Your task to perform on an android device: turn notification dots on Image 0: 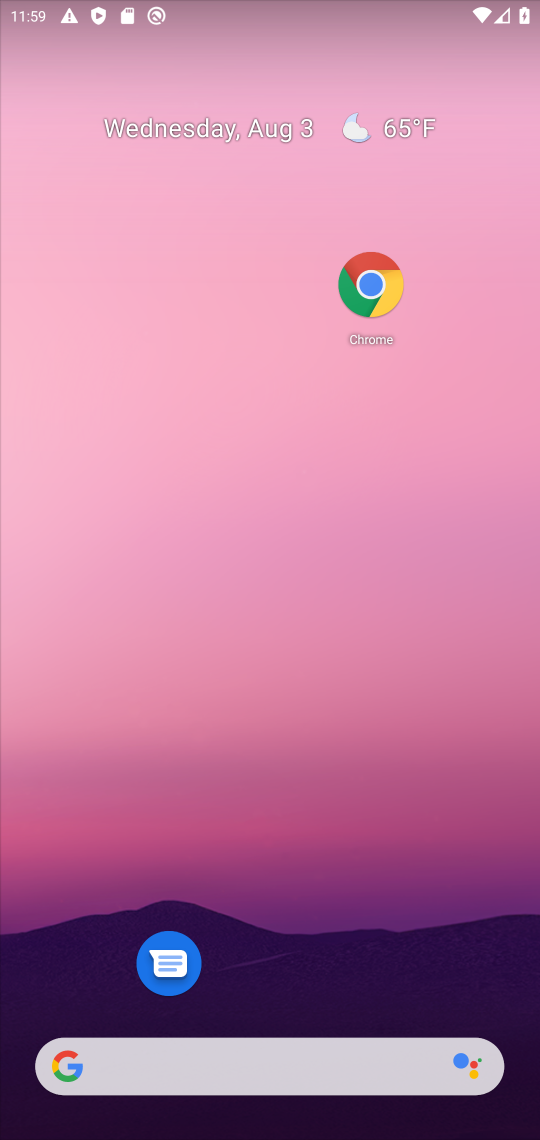
Step 0: drag from (251, 616) to (251, 228)
Your task to perform on an android device: turn notification dots on Image 1: 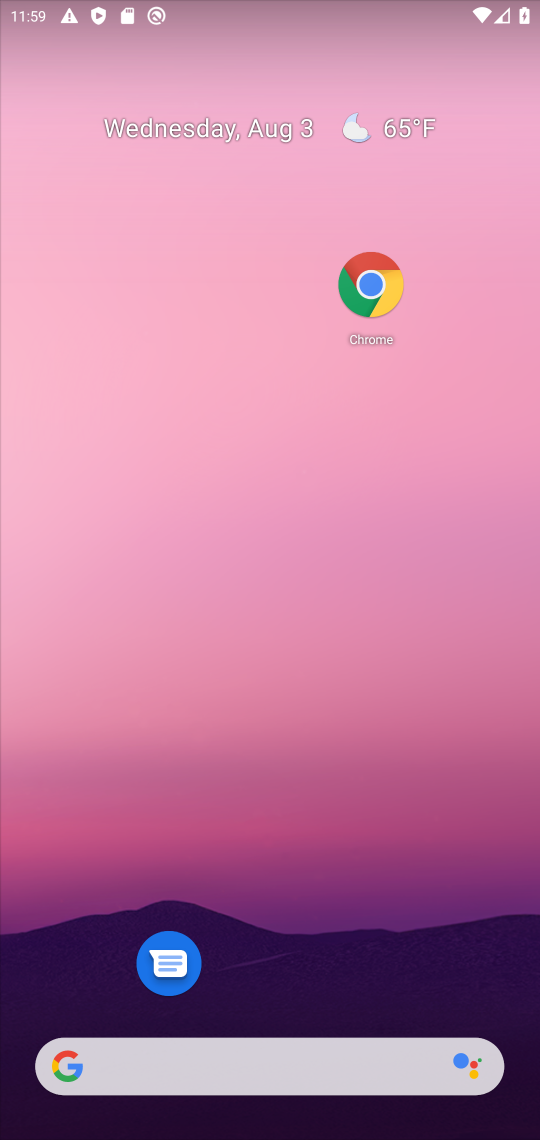
Step 1: drag from (278, 1035) to (272, 342)
Your task to perform on an android device: turn notification dots on Image 2: 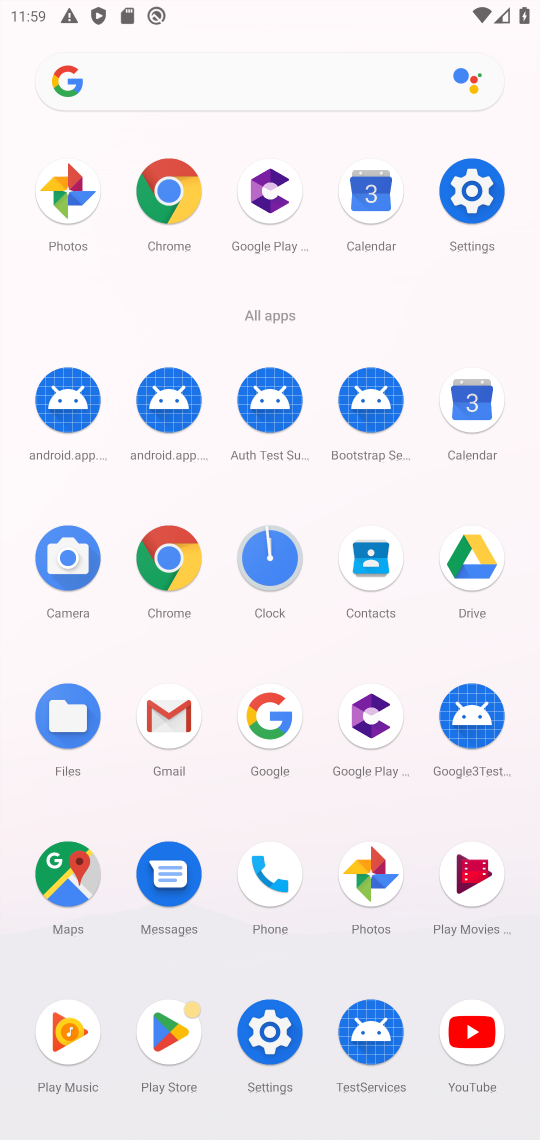
Step 2: click (467, 211)
Your task to perform on an android device: turn notification dots on Image 3: 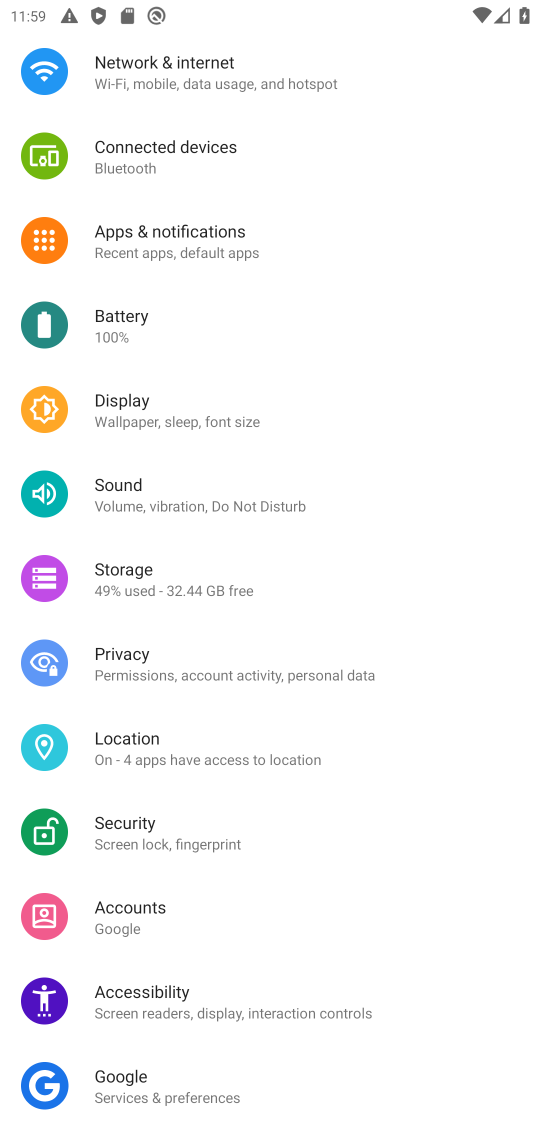
Step 3: drag from (306, 175) to (295, 996)
Your task to perform on an android device: turn notification dots on Image 4: 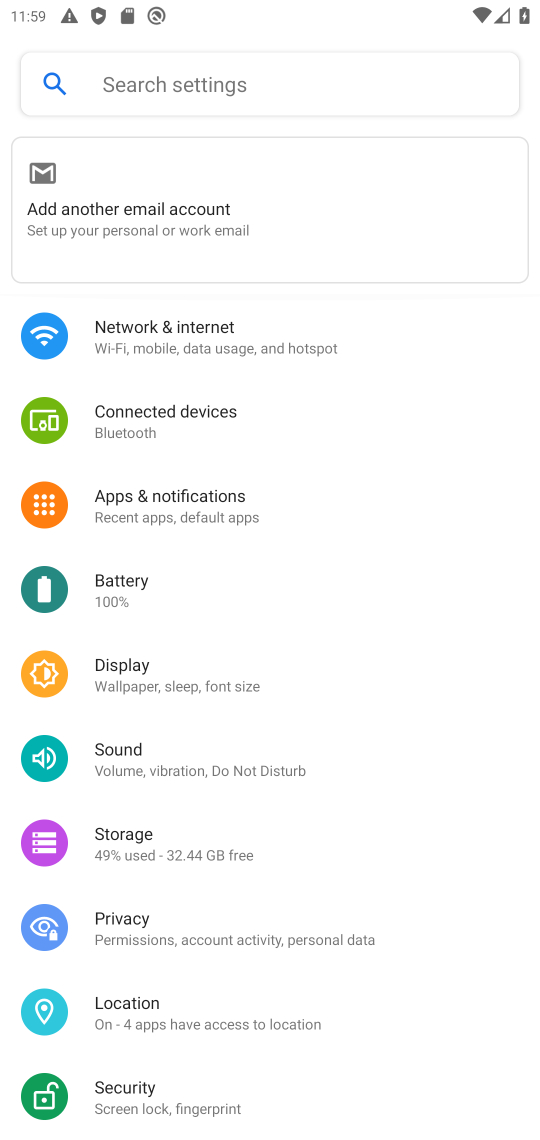
Step 4: click (232, 66)
Your task to perform on an android device: turn notification dots on Image 5: 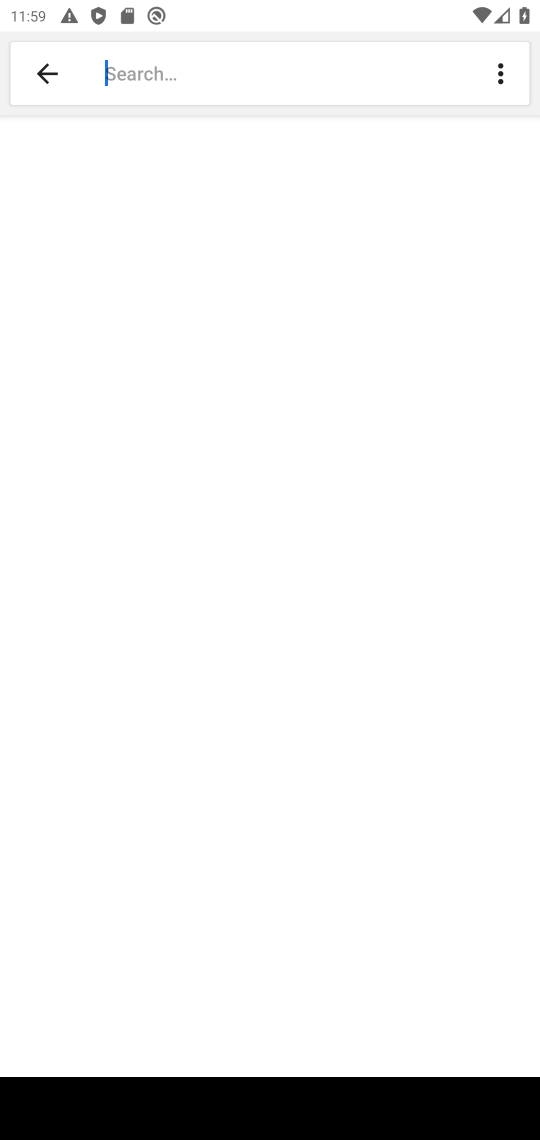
Step 5: click (292, 91)
Your task to perform on an android device: turn notification dots on Image 6: 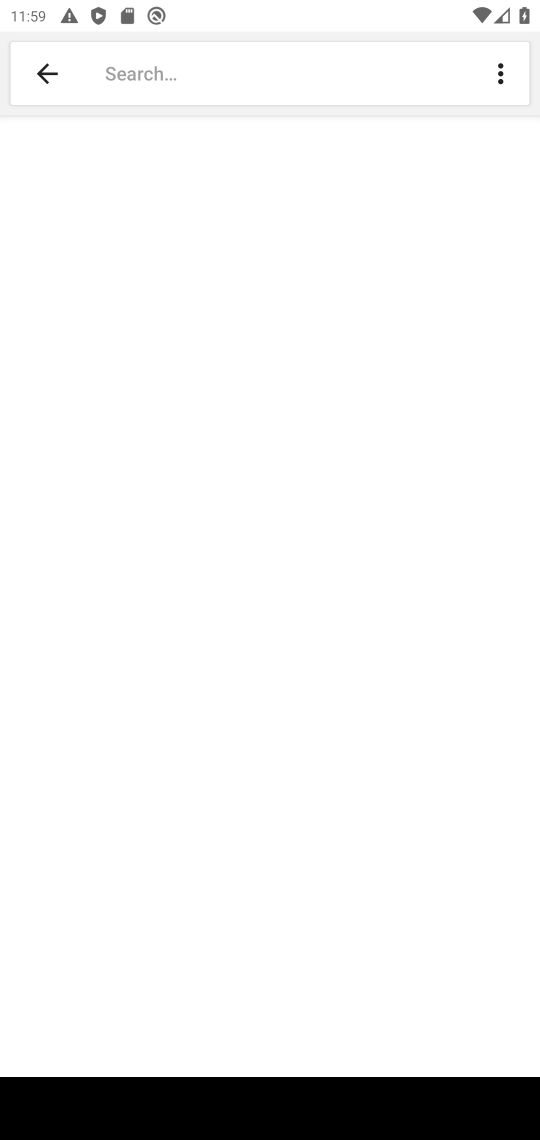
Step 6: type "notification dots "
Your task to perform on an android device: turn notification dots on Image 7: 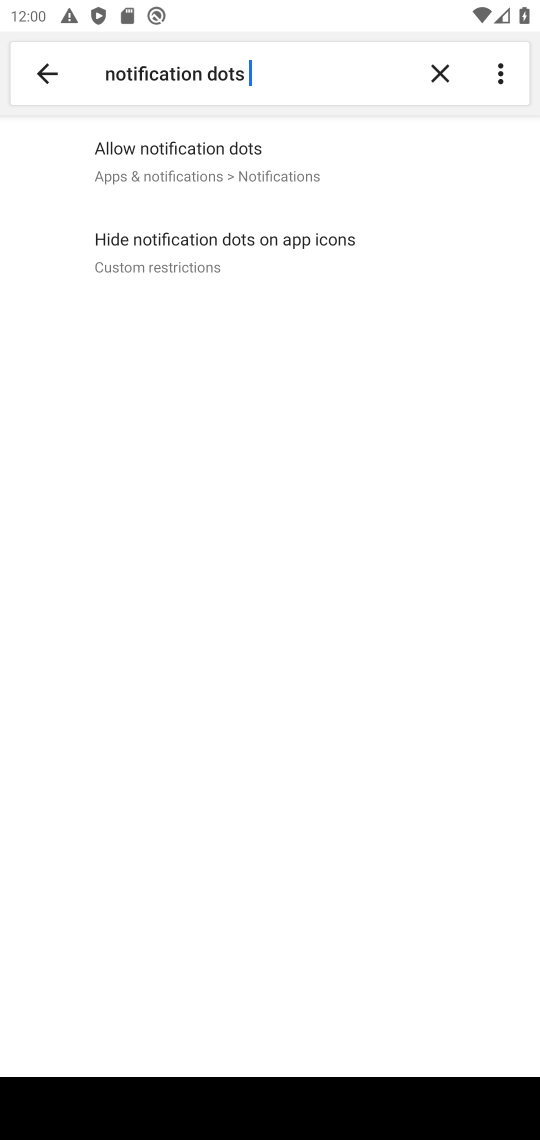
Step 7: click (292, 141)
Your task to perform on an android device: turn notification dots on Image 8: 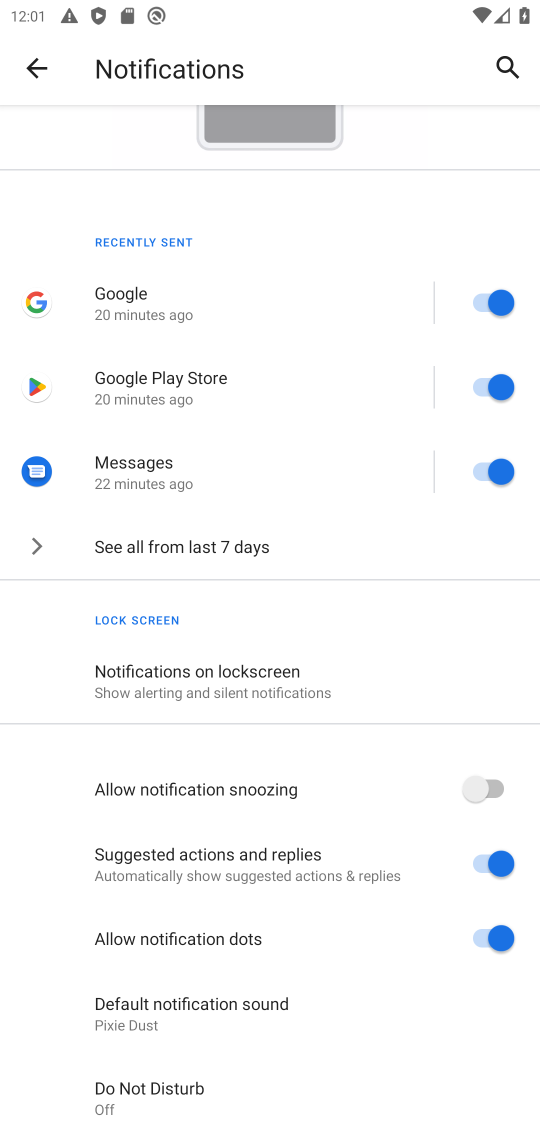
Step 8: task complete